Your task to perform on an android device: open app "TextNow: Call + Text Unlimited" (install if not already installed) and enter user name: "stoke@yahoo.com" and password: "prompted" Image 0: 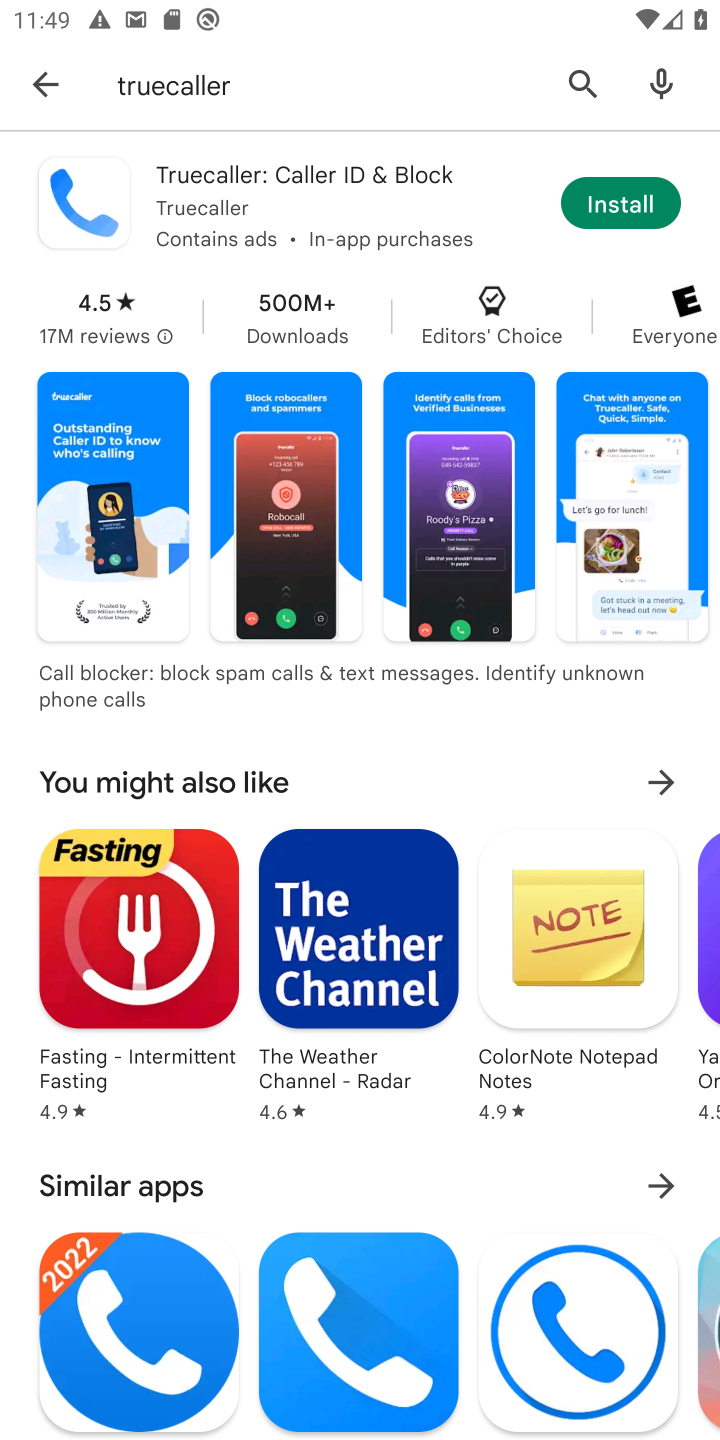
Step 0: press home button
Your task to perform on an android device: open app "TextNow: Call + Text Unlimited" (install if not already installed) and enter user name: "stoke@yahoo.com" and password: "prompted" Image 1: 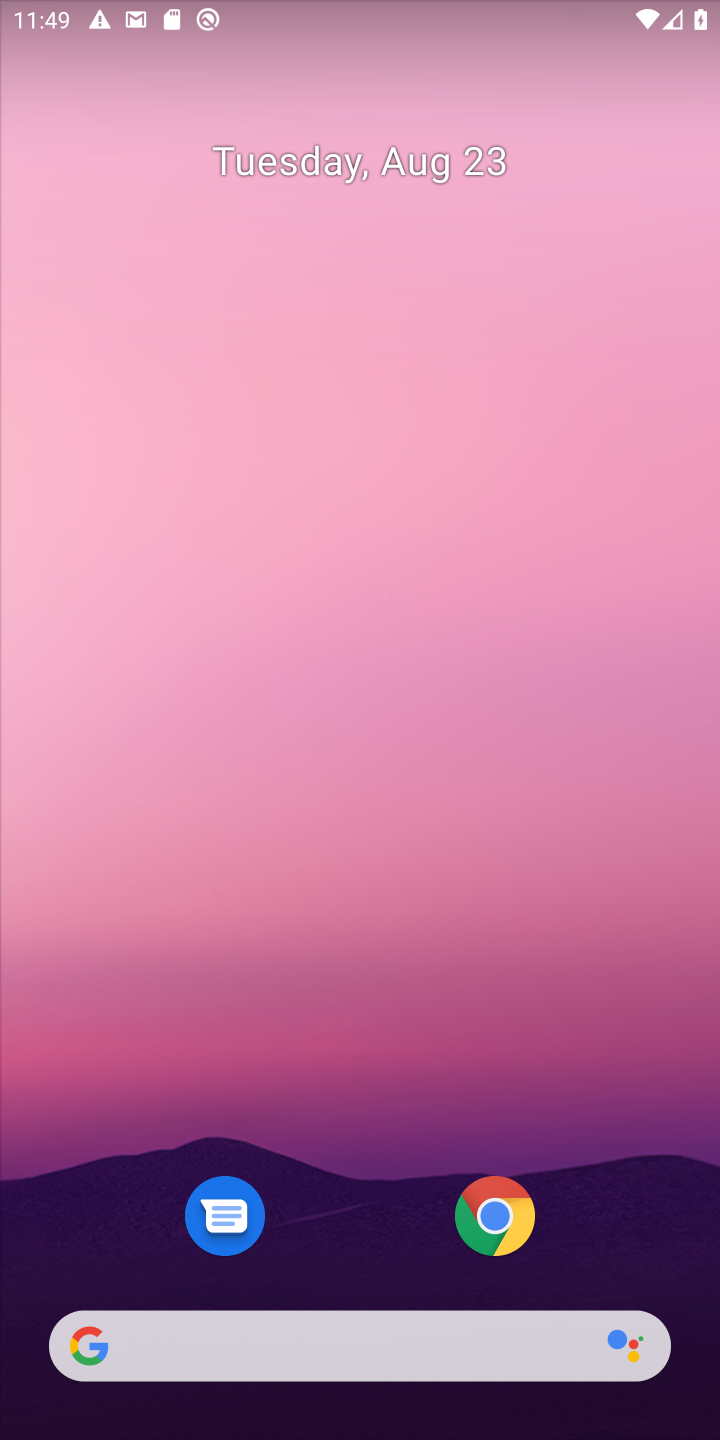
Step 1: drag from (270, 1367) to (415, 233)
Your task to perform on an android device: open app "TextNow: Call + Text Unlimited" (install if not already installed) and enter user name: "stoke@yahoo.com" and password: "prompted" Image 2: 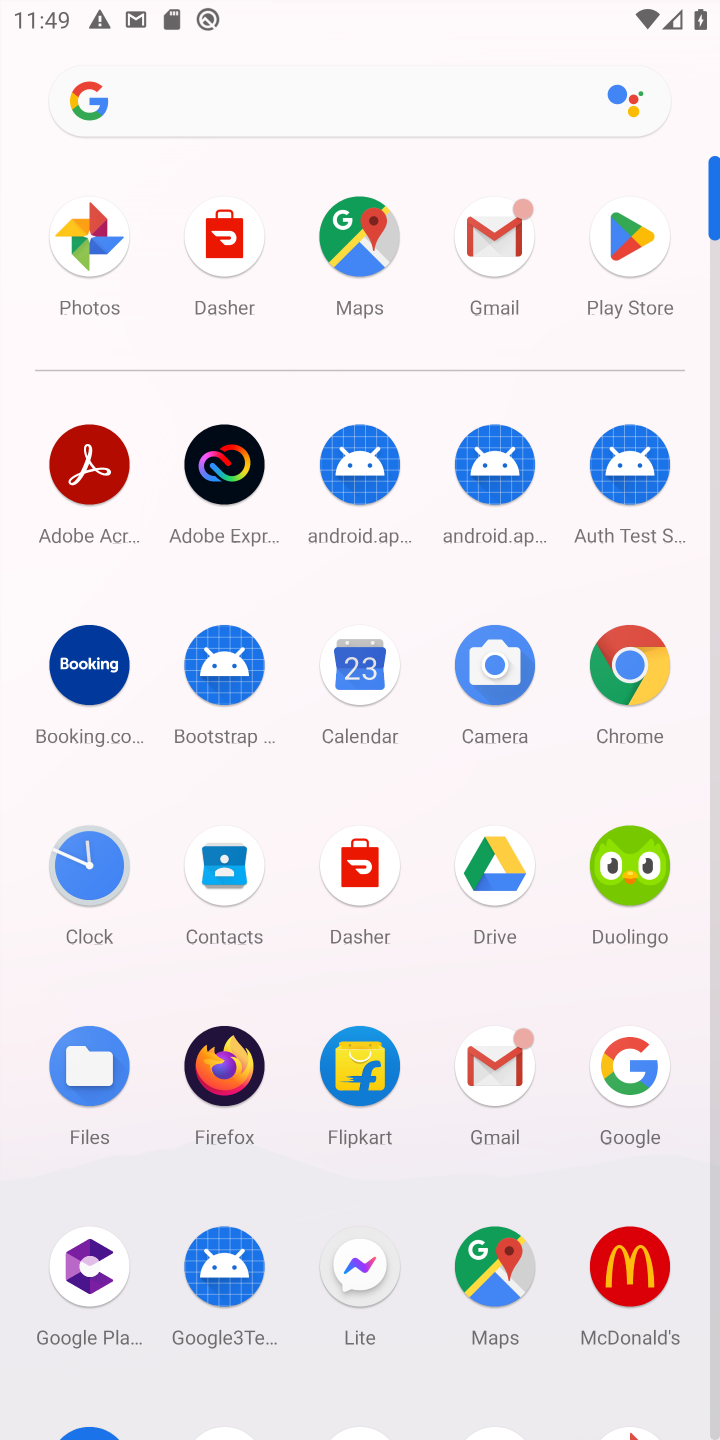
Step 2: click (625, 245)
Your task to perform on an android device: open app "TextNow: Call + Text Unlimited" (install if not already installed) and enter user name: "stoke@yahoo.com" and password: "prompted" Image 3: 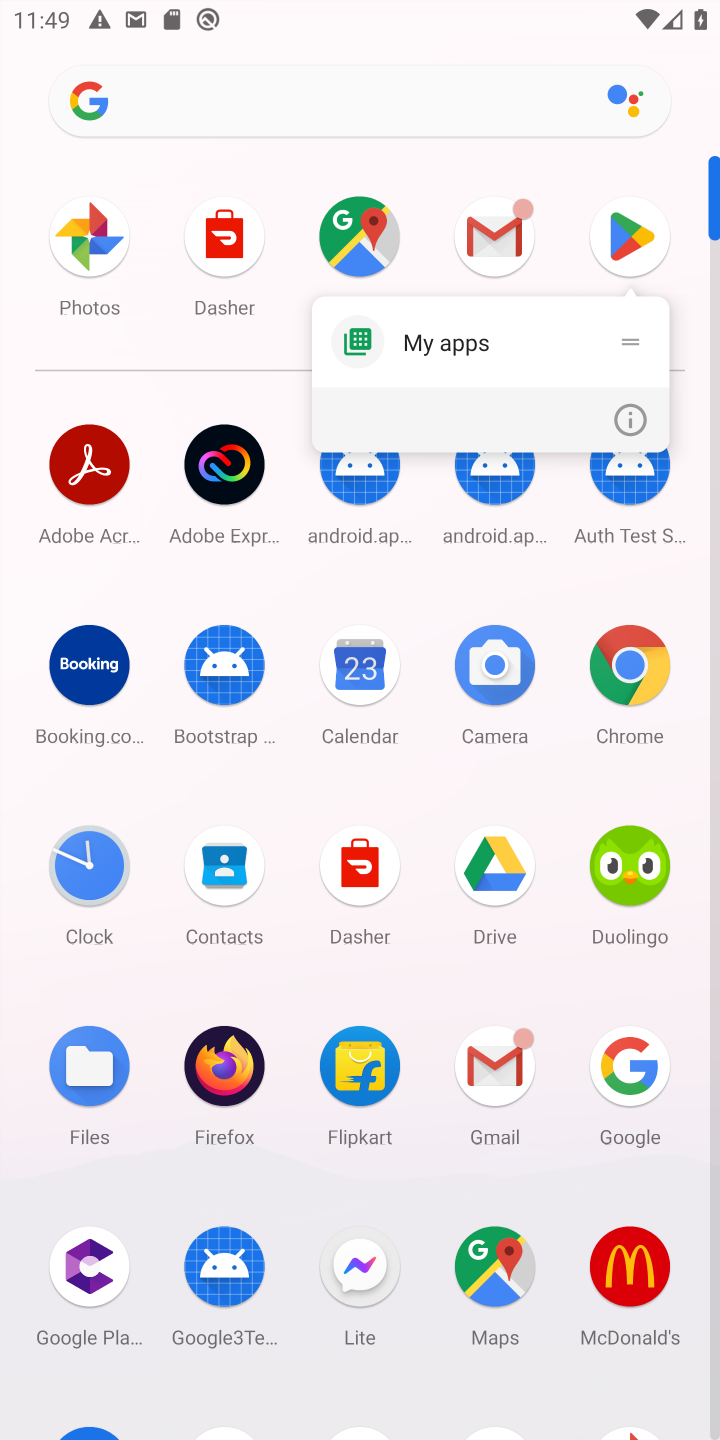
Step 3: click (625, 245)
Your task to perform on an android device: open app "TextNow: Call + Text Unlimited" (install if not already installed) and enter user name: "stoke@yahoo.com" and password: "prompted" Image 4: 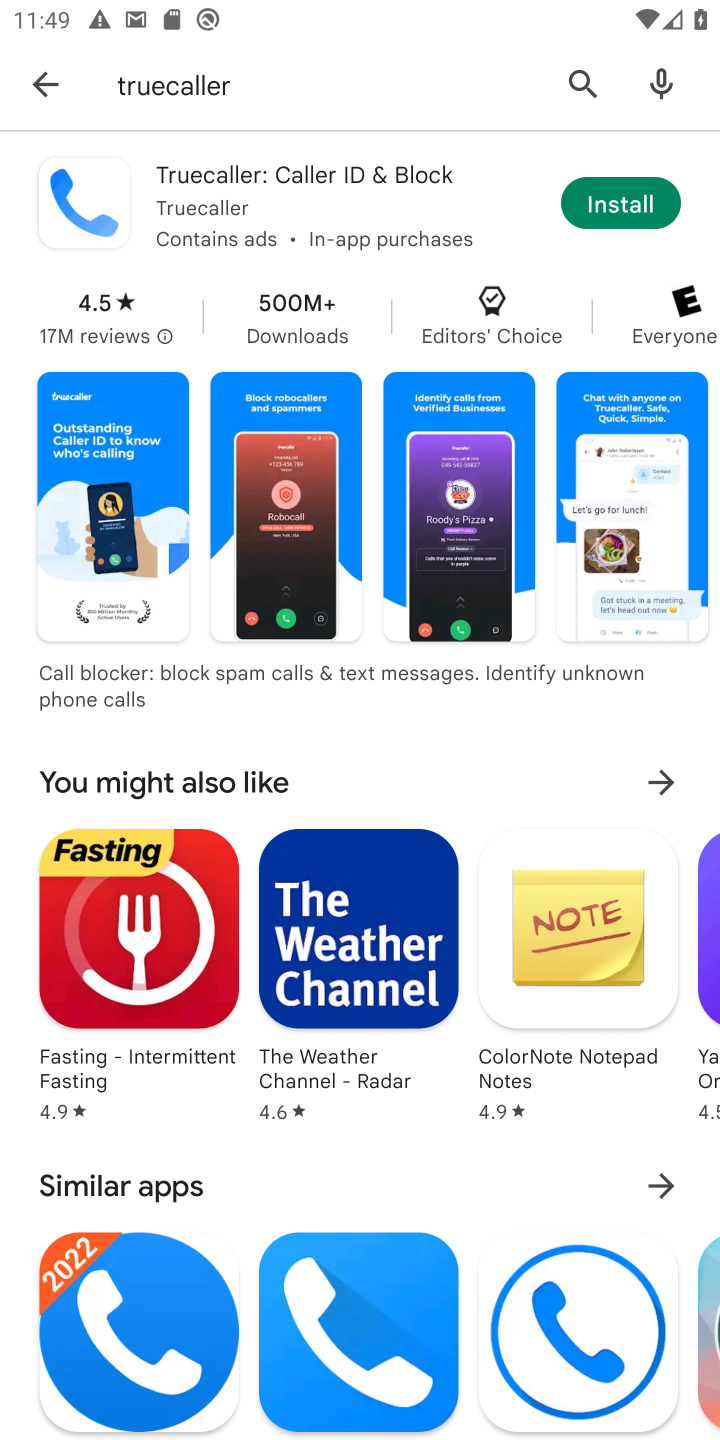
Step 4: press back button
Your task to perform on an android device: open app "TextNow: Call + Text Unlimited" (install if not already installed) and enter user name: "stoke@yahoo.com" and password: "prompted" Image 5: 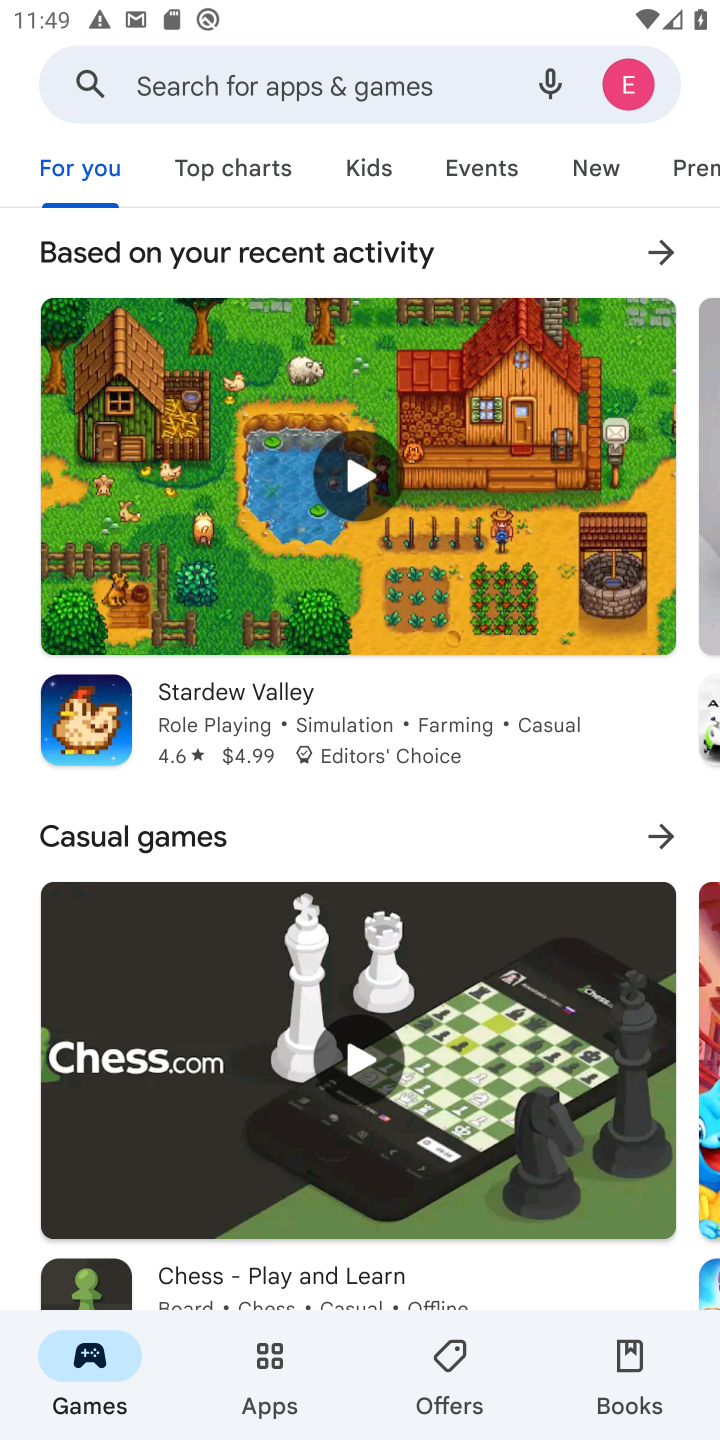
Step 5: click (324, 86)
Your task to perform on an android device: open app "TextNow: Call + Text Unlimited" (install if not already installed) and enter user name: "stoke@yahoo.com" and password: "prompted" Image 6: 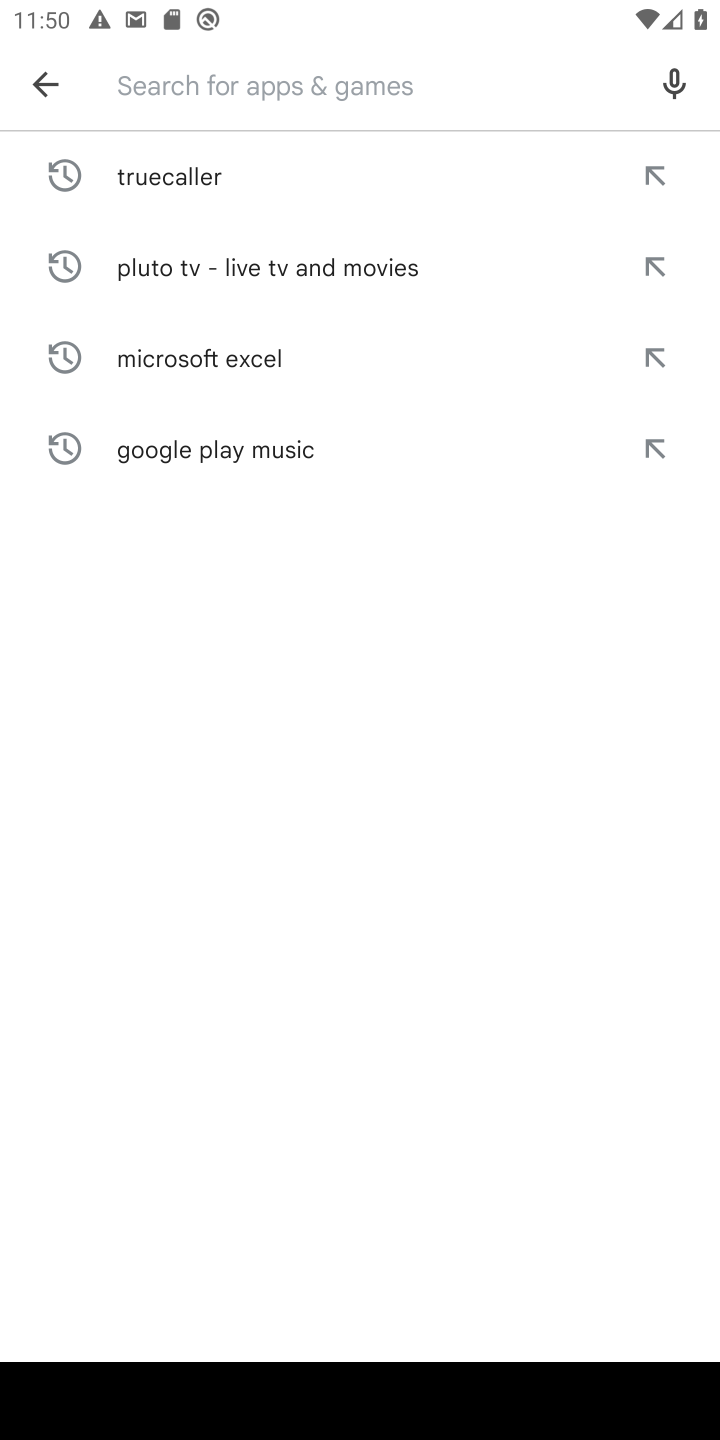
Step 6: click (176, 66)
Your task to perform on an android device: open app "TextNow: Call + Text Unlimited" (install if not already installed) and enter user name: "stoke@yahoo.com" and password: "prompted" Image 7: 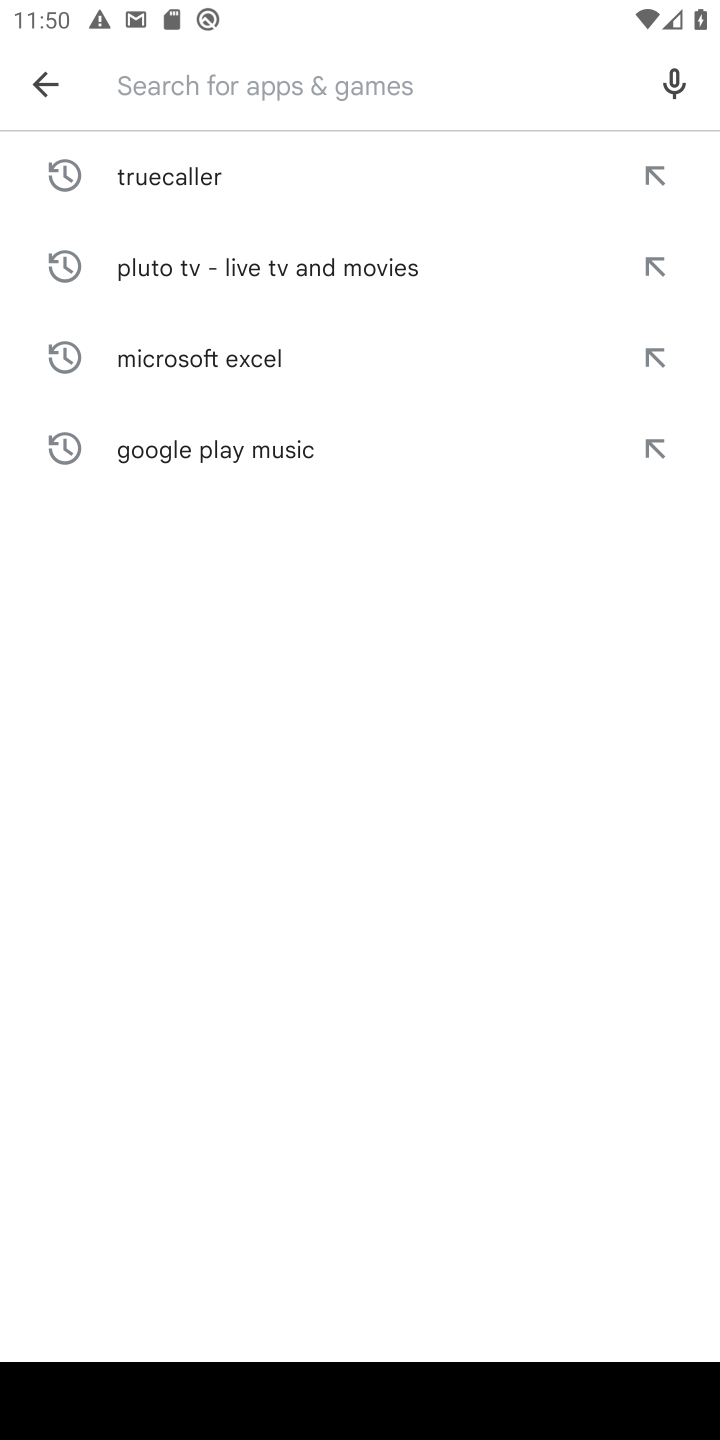
Step 7: type "TextNow: Call + Text Unlimited"
Your task to perform on an android device: open app "TextNow: Call + Text Unlimited" (install if not already installed) and enter user name: "stoke@yahoo.com" and password: "prompted" Image 8: 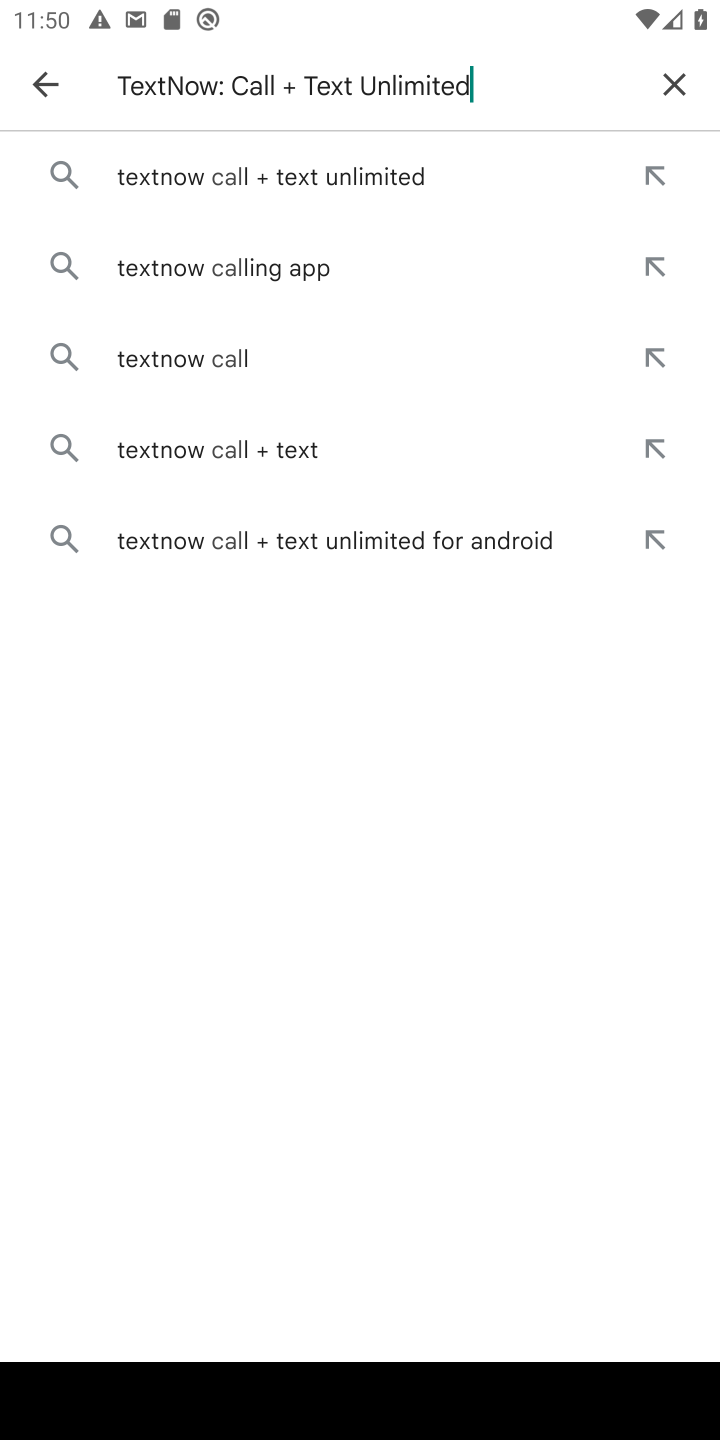
Step 8: type ""
Your task to perform on an android device: open app "TextNow: Call + Text Unlimited" (install if not already installed) and enter user name: "stoke@yahoo.com" and password: "prompted" Image 9: 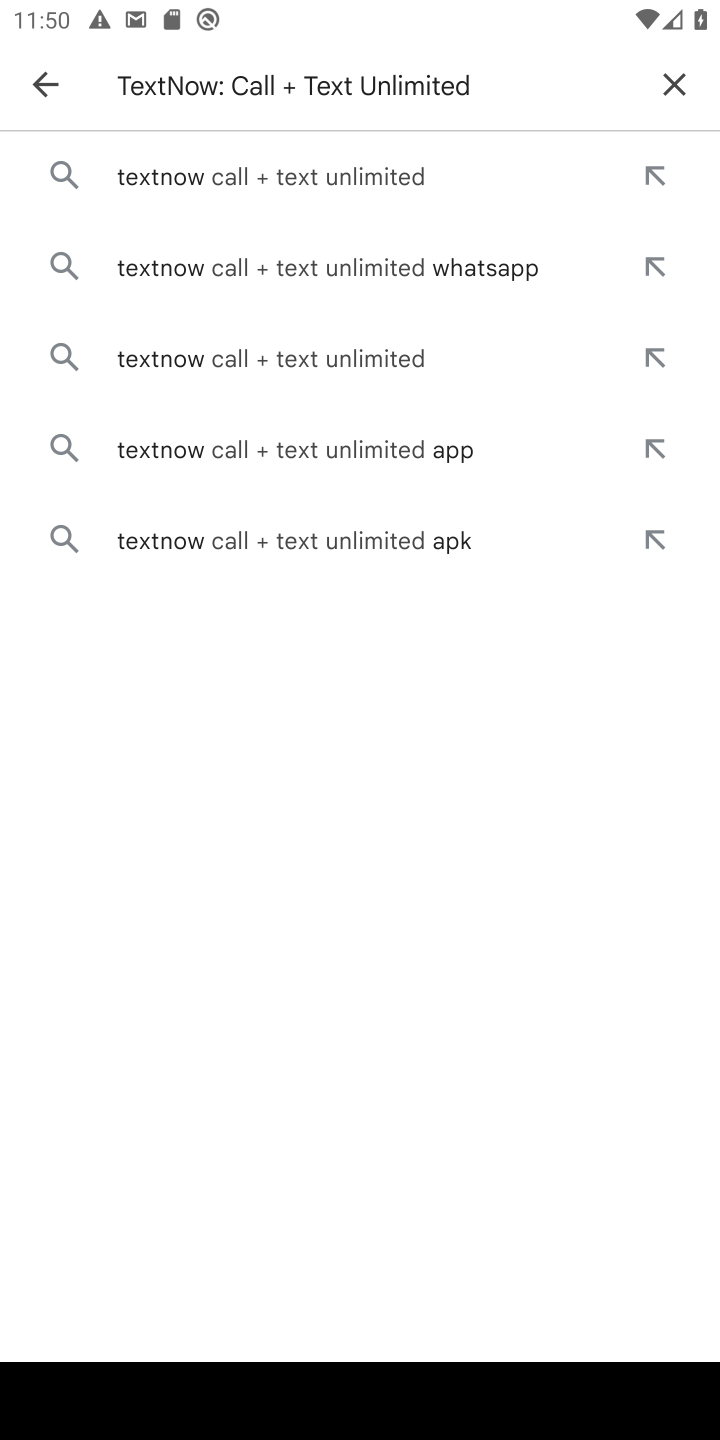
Step 9: click (249, 167)
Your task to perform on an android device: open app "TextNow: Call + Text Unlimited" (install if not already installed) and enter user name: "stoke@yahoo.com" and password: "prompted" Image 10: 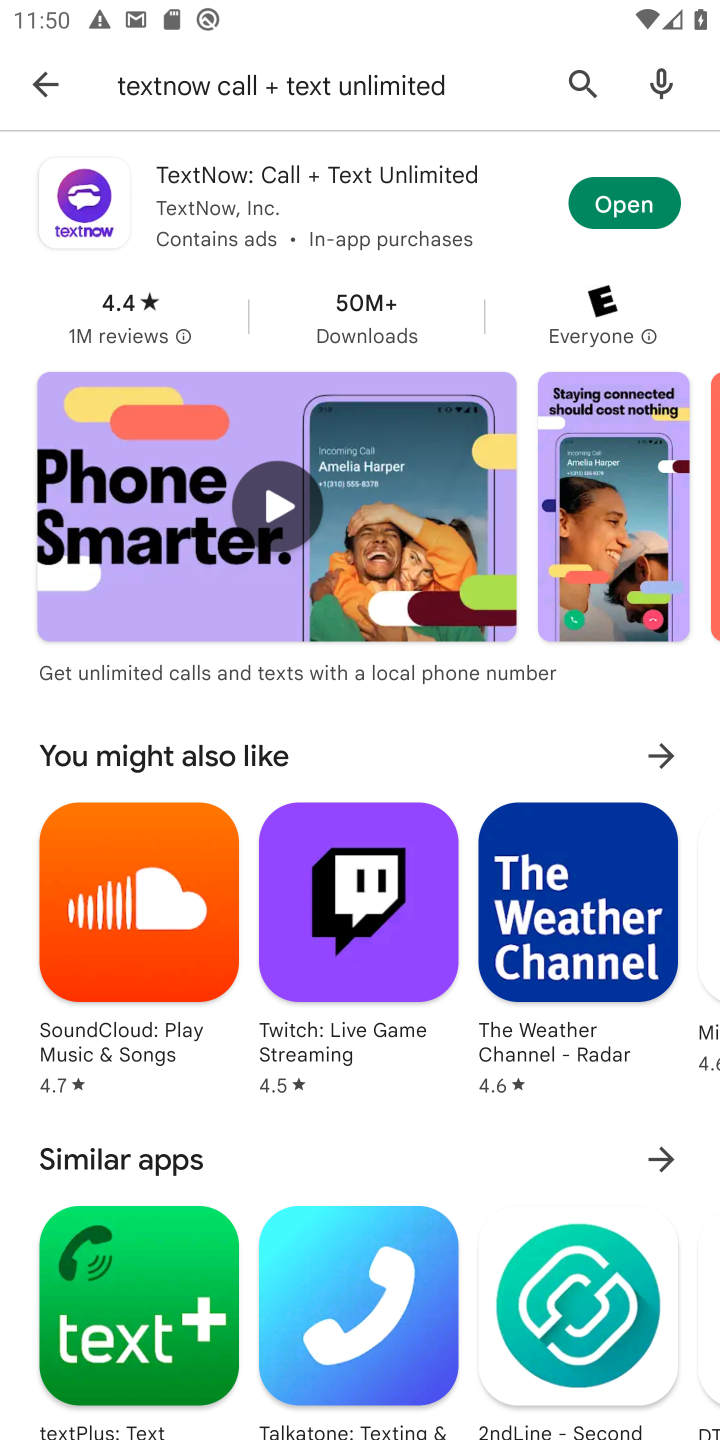
Step 10: click (606, 195)
Your task to perform on an android device: open app "TextNow: Call + Text Unlimited" (install if not already installed) and enter user name: "stoke@yahoo.com" and password: "prompted" Image 11: 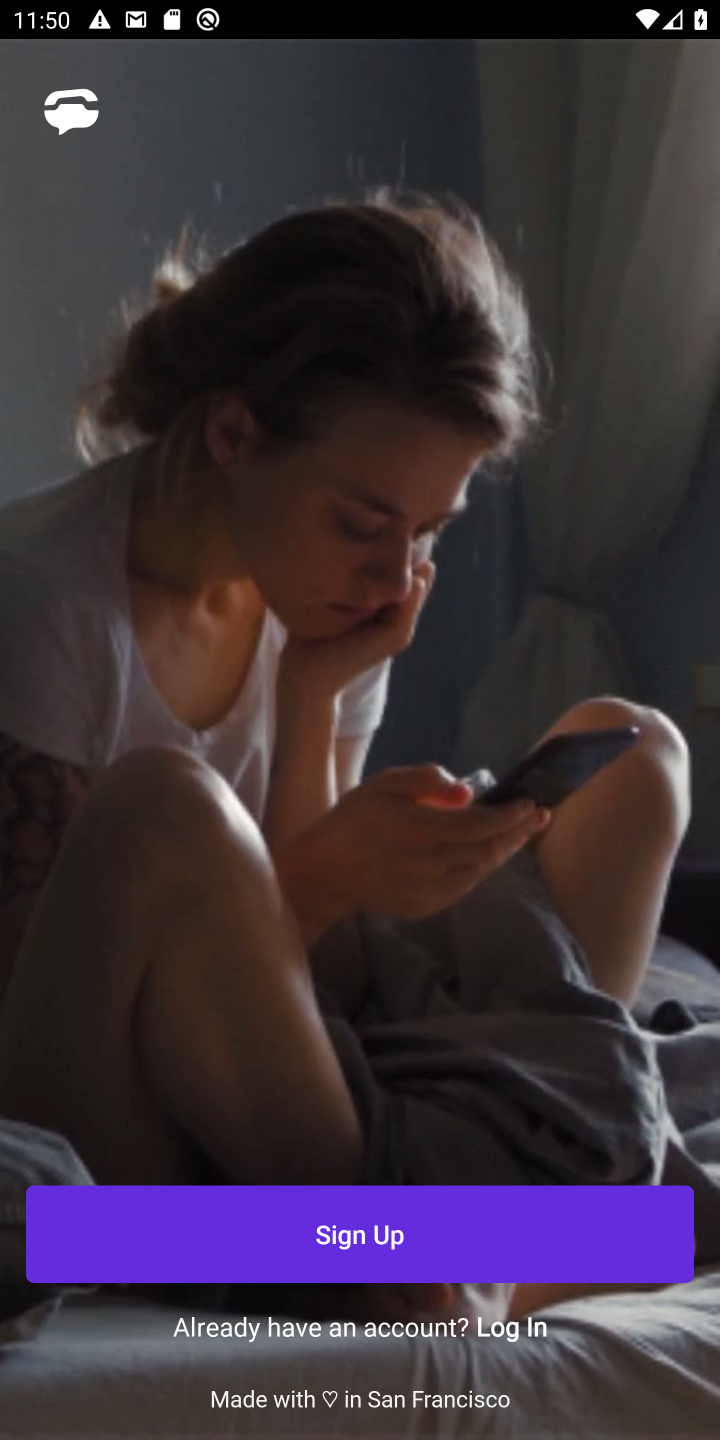
Step 11: click (513, 1331)
Your task to perform on an android device: open app "TextNow: Call + Text Unlimited" (install if not already installed) and enter user name: "stoke@yahoo.com" and password: "prompted" Image 12: 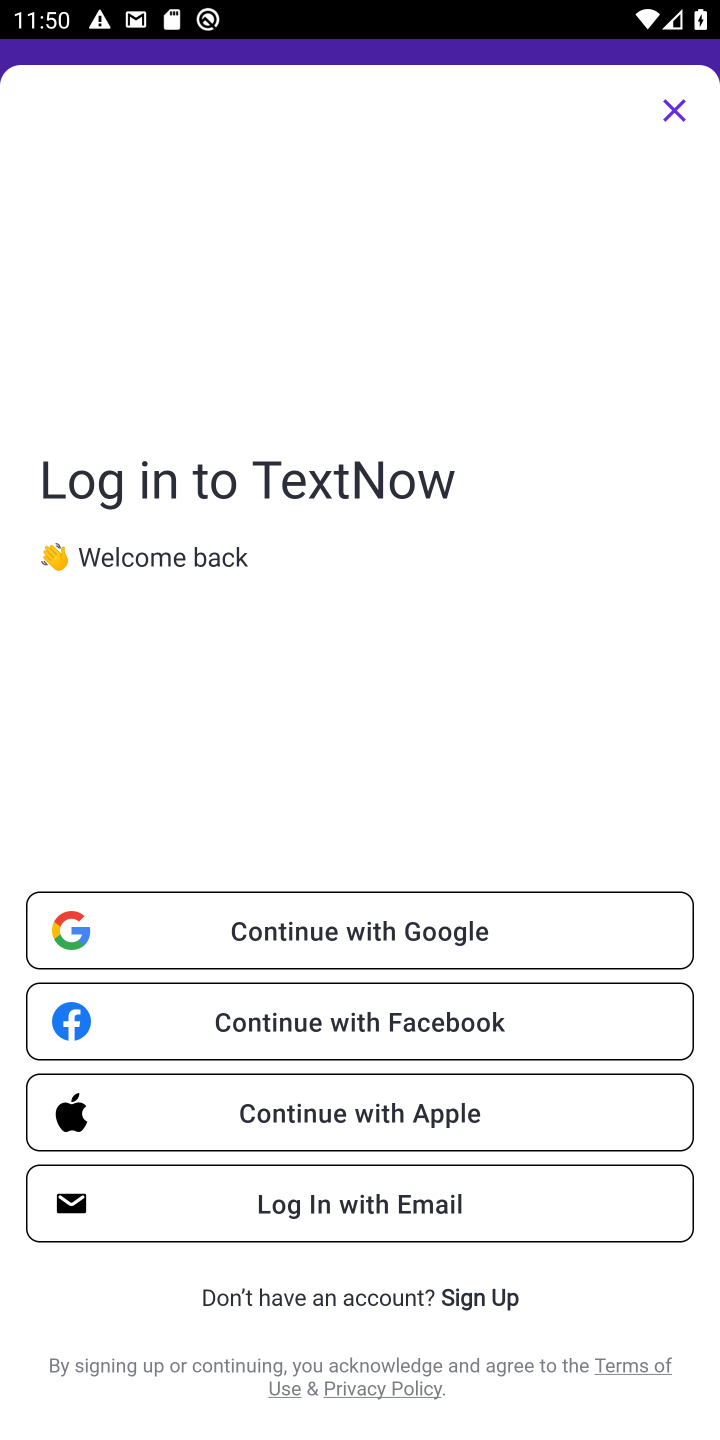
Step 12: click (417, 1200)
Your task to perform on an android device: open app "TextNow: Call + Text Unlimited" (install if not already installed) and enter user name: "stoke@yahoo.com" and password: "prompted" Image 13: 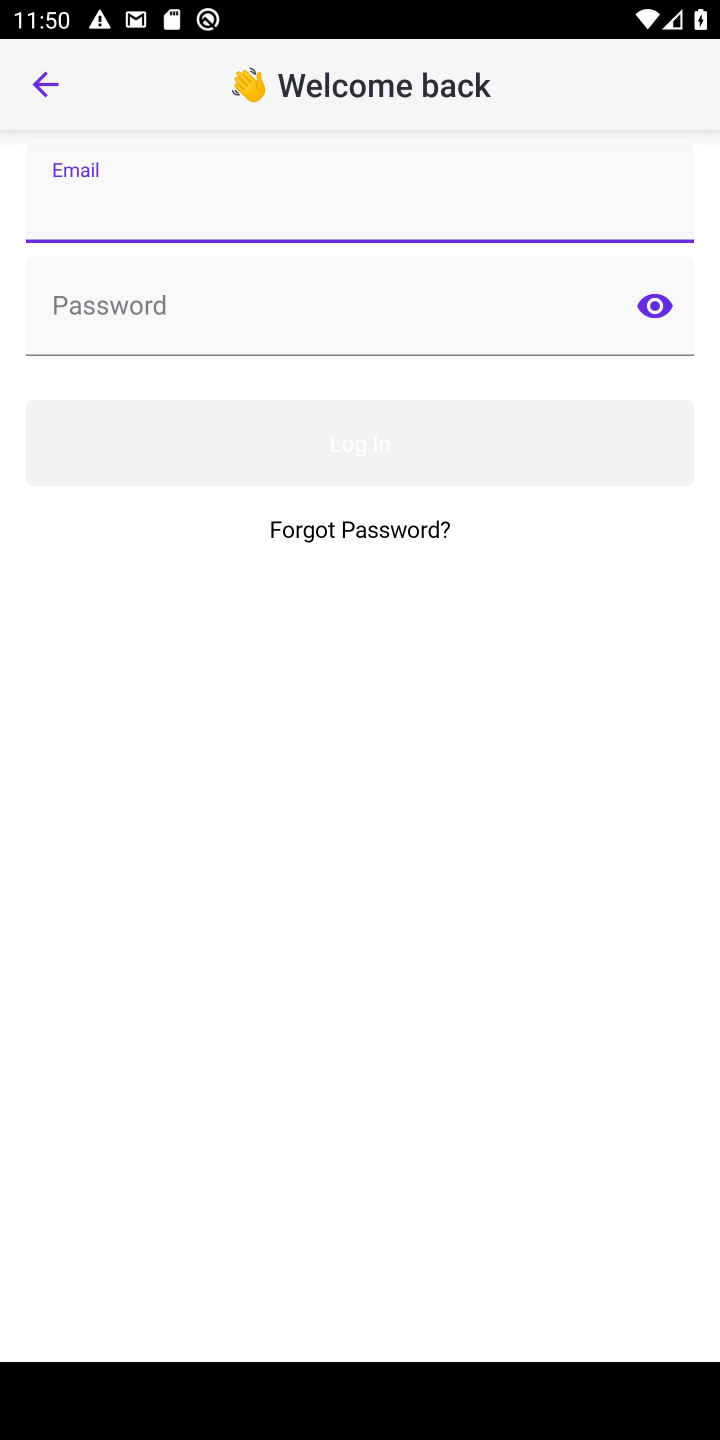
Step 13: click (221, 199)
Your task to perform on an android device: open app "TextNow: Call + Text Unlimited" (install if not already installed) and enter user name: "stoke@yahoo.com" and password: "prompted" Image 14: 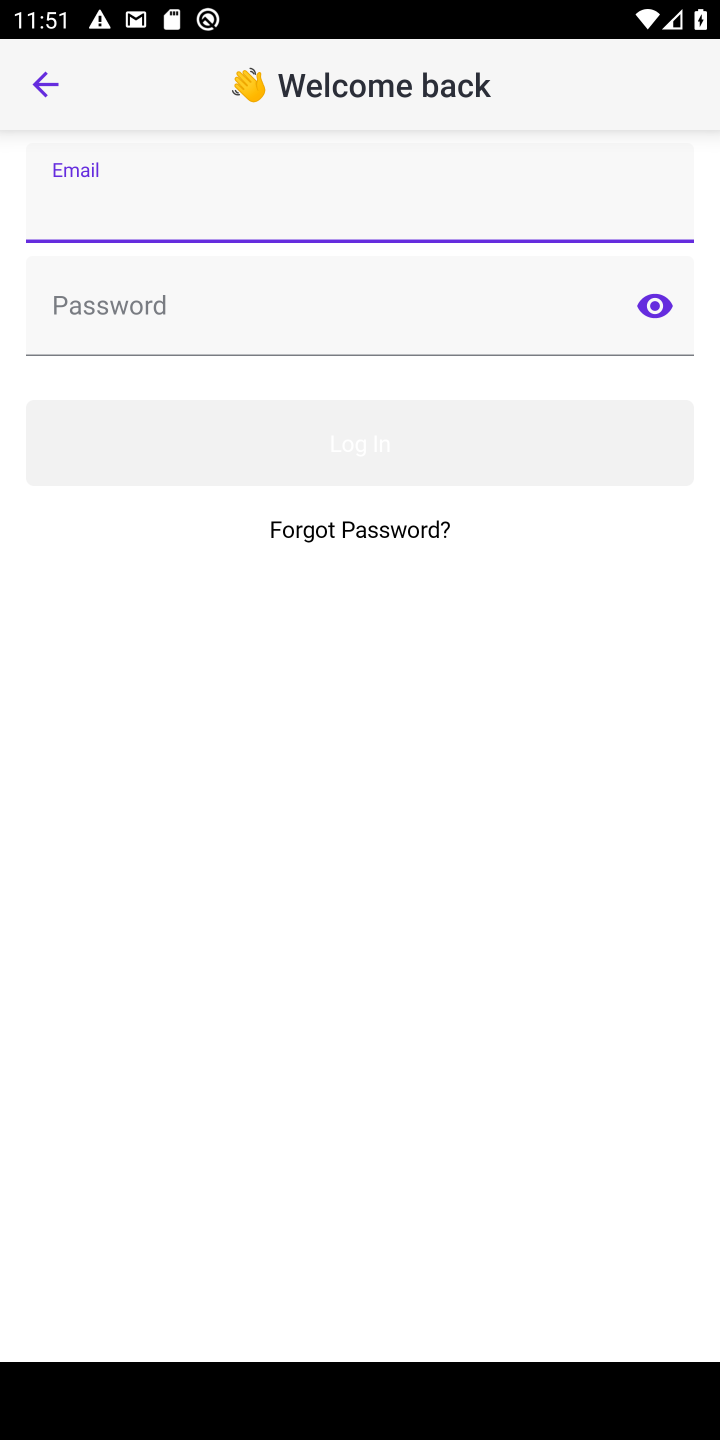
Step 14: type "stoke@yahoo.com"
Your task to perform on an android device: open app "TextNow: Call + Text Unlimited" (install if not already installed) and enter user name: "stoke@yahoo.com" and password: "prompted" Image 15: 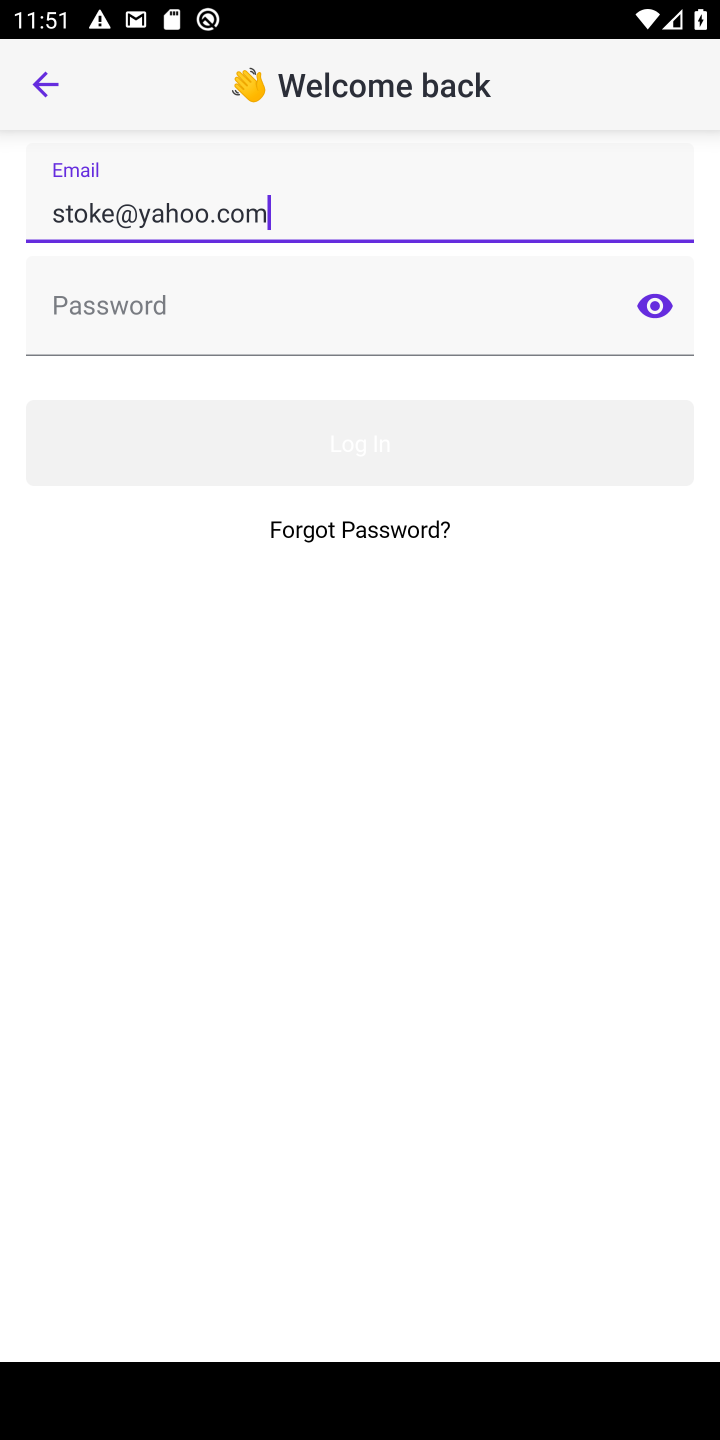
Step 15: click (348, 305)
Your task to perform on an android device: open app "TextNow: Call + Text Unlimited" (install if not already installed) and enter user name: "stoke@yahoo.com" and password: "prompted" Image 16: 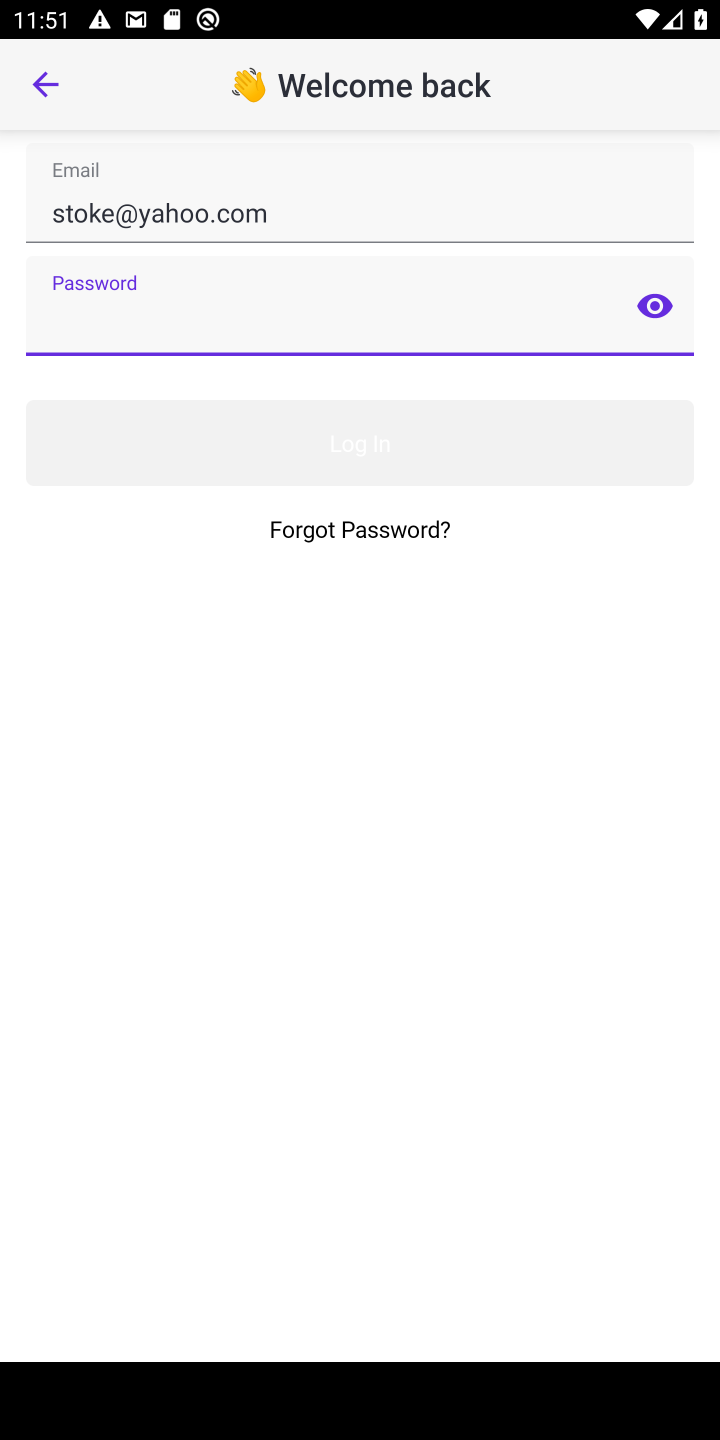
Step 16: type "prompted"
Your task to perform on an android device: open app "TextNow: Call + Text Unlimited" (install if not already installed) and enter user name: "stoke@yahoo.com" and password: "prompted" Image 17: 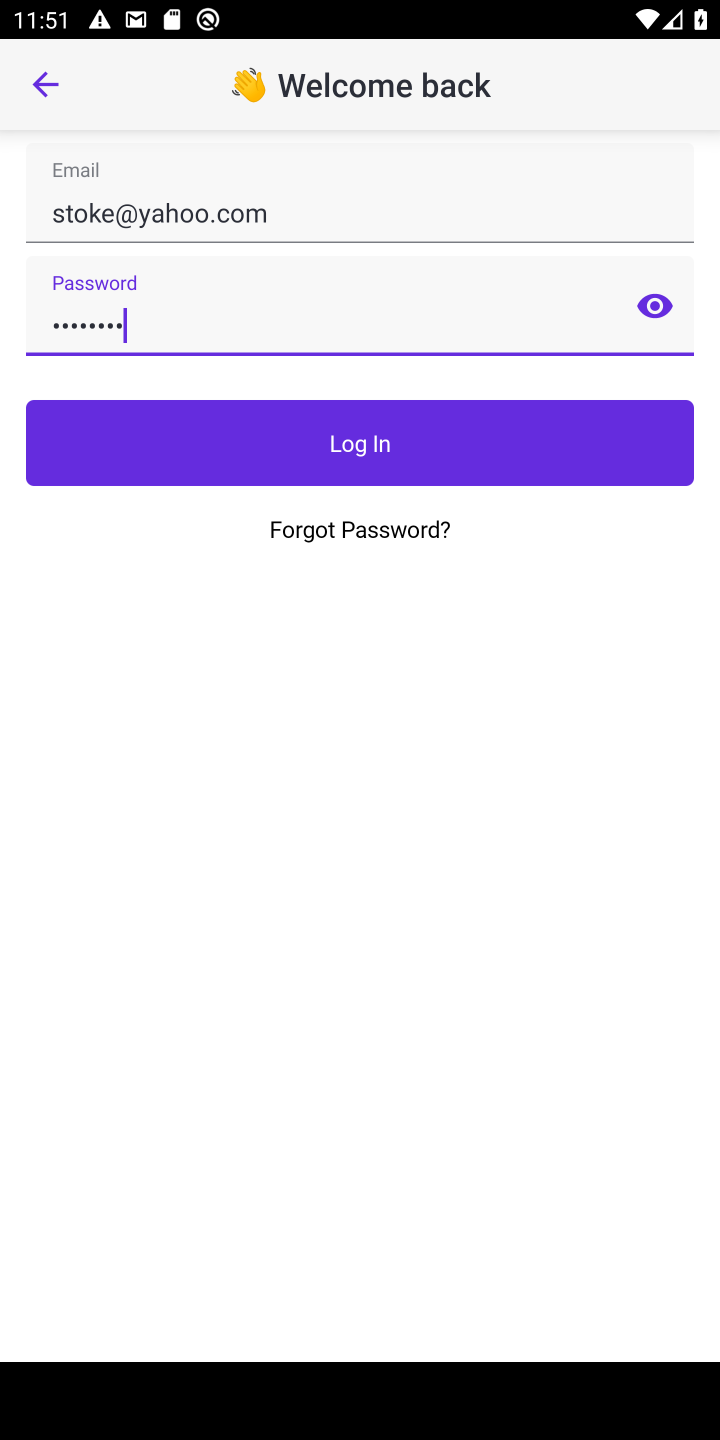
Step 17: task complete